Your task to perform on an android device: empty trash in google photos Image 0: 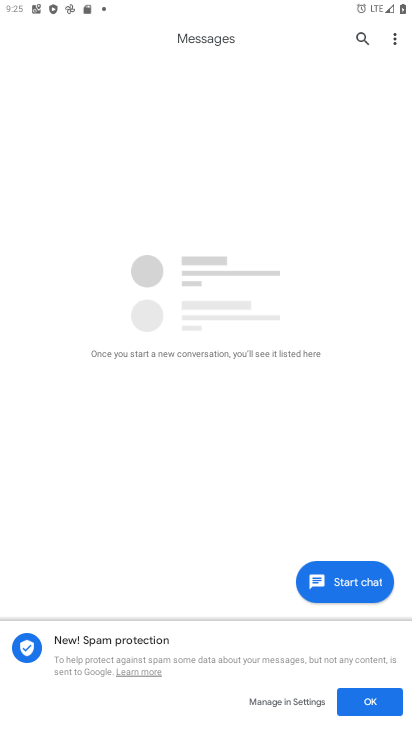
Step 0: press home button
Your task to perform on an android device: empty trash in google photos Image 1: 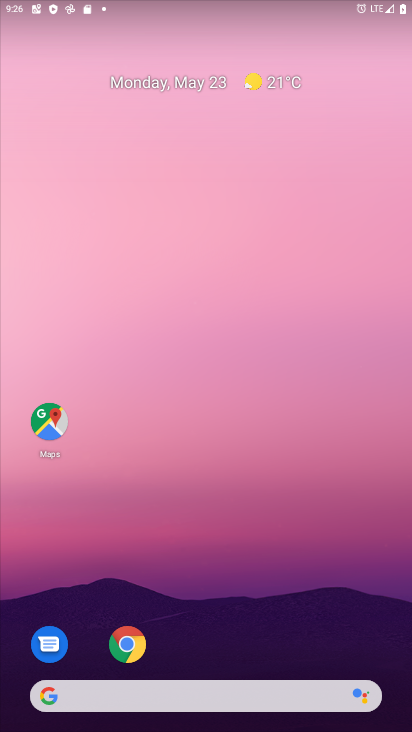
Step 1: drag from (245, 544) to (312, 115)
Your task to perform on an android device: empty trash in google photos Image 2: 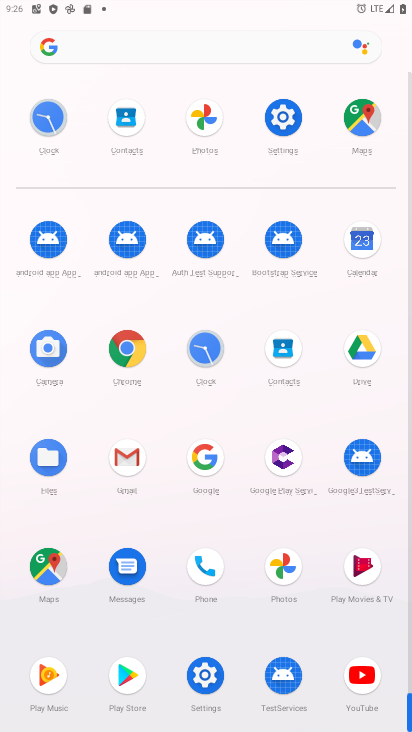
Step 2: click (281, 563)
Your task to perform on an android device: empty trash in google photos Image 3: 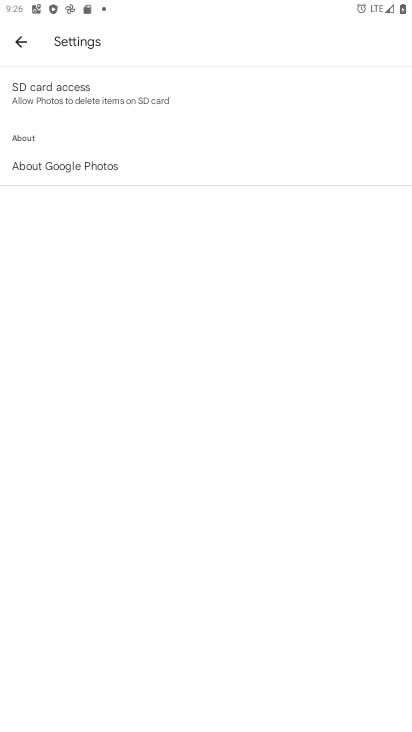
Step 3: click (25, 41)
Your task to perform on an android device: empty trash in google photos Image 4: 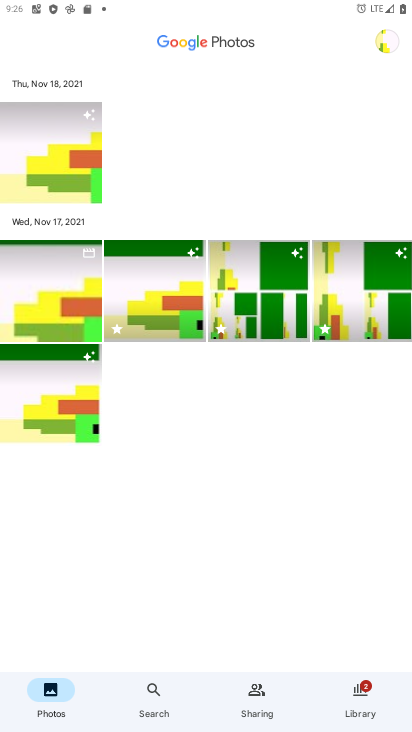
Step 4: click (375, 705)
Your task to perform on an android device: empty trash in google photos Image 5: 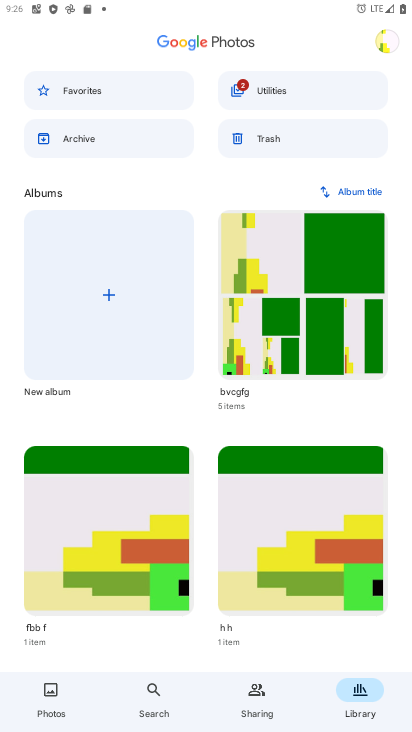
Step 5: click (317, 136)
Your task to perform on an android device: empty trash in google photos Image 6: 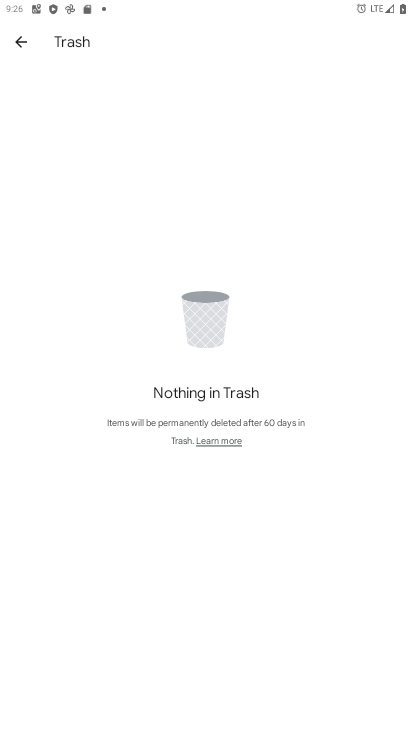
Step 6: task complete